Your task to perform on an android device: Go to location settings Image 0: 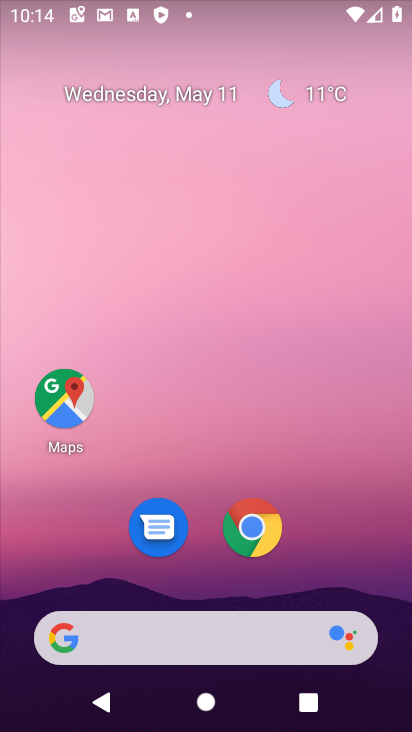
Step 0: drag from (356, 527) to (360, 79)
Your task to perform on an android device: Go to location settings Image 1: 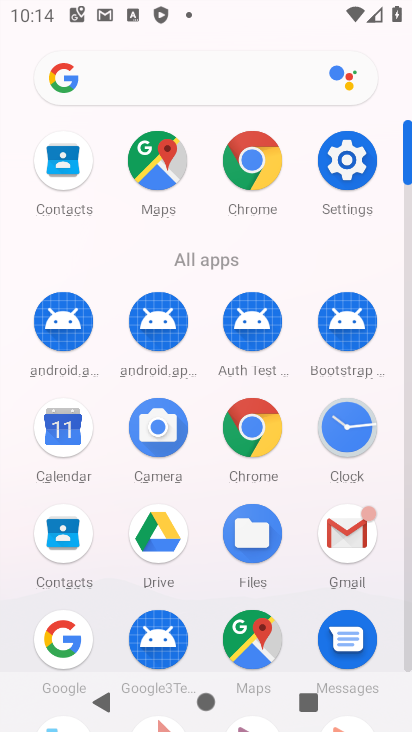
Step 1: click (362, 158)
Your task to perform on an android device: Go to location settings Image 2: 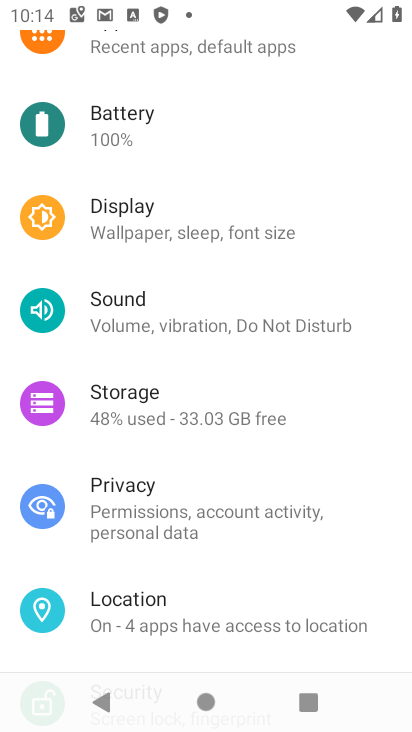
Step 2: click (143, 598)
Your task to perform on an android device: Go to location settings Image 3: 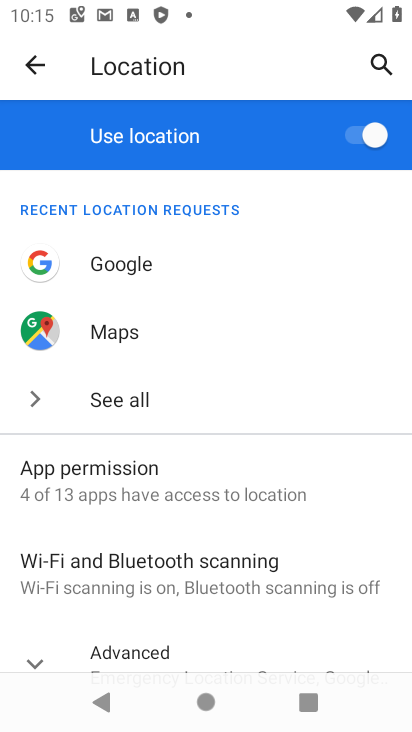
Step 3: task complete